Your task to perform on an android device: turn off location history Image 0: 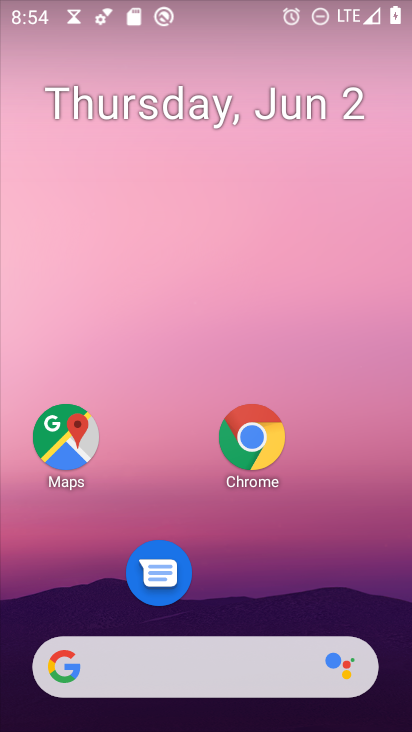
Step 0: press home button
Your task to perform on an android device: turn off location history Image 1: 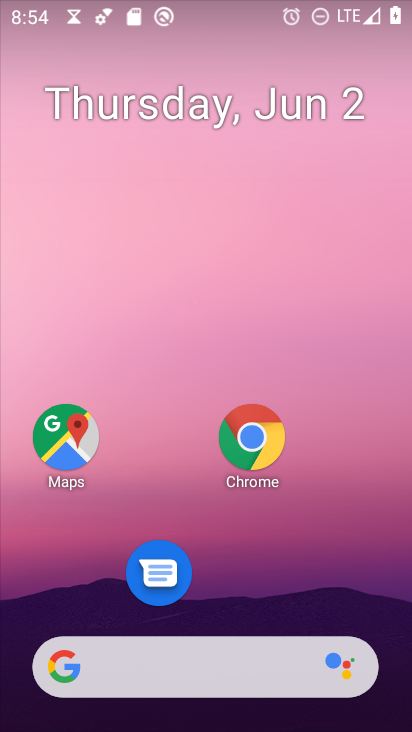
Step 1: click (60, 464)
Your task to perform on an android device: turn off location history Image 2: 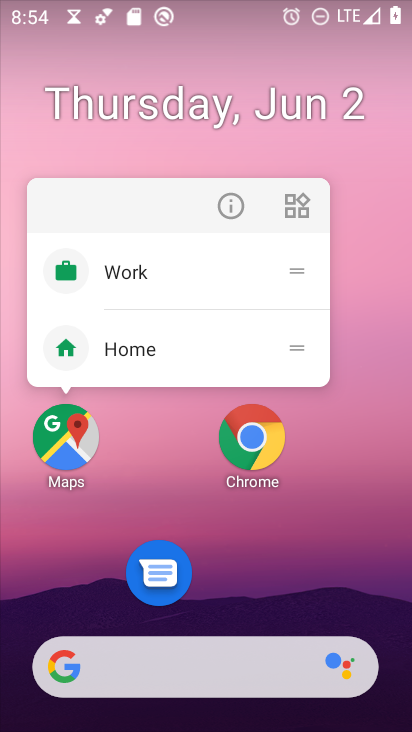
Step 2: click (60, 448)
Your task to perform on an android device: turn off location history Image 3: 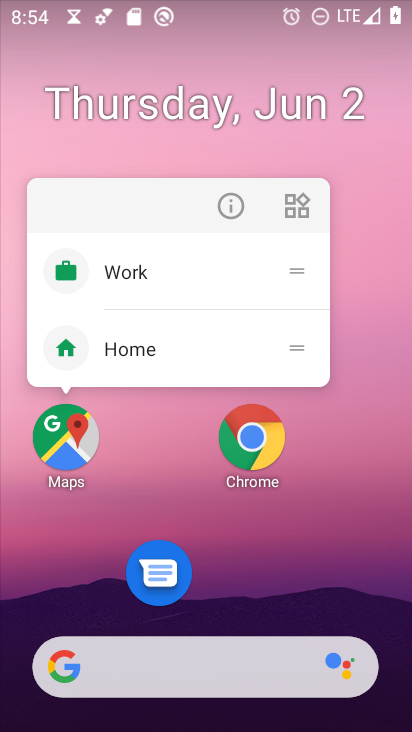
Step 3: click (65, 441)
Your task to perform on an android device: turn off location history Image 4: 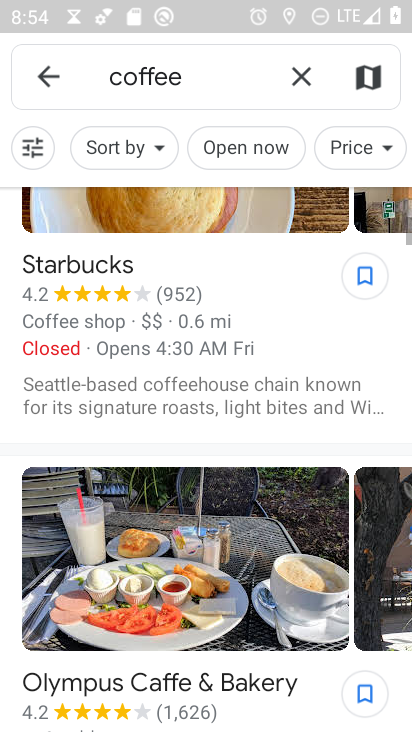
Step 4: click (45, 73)
Your task to perform on an android device: turn off location history Image 5: 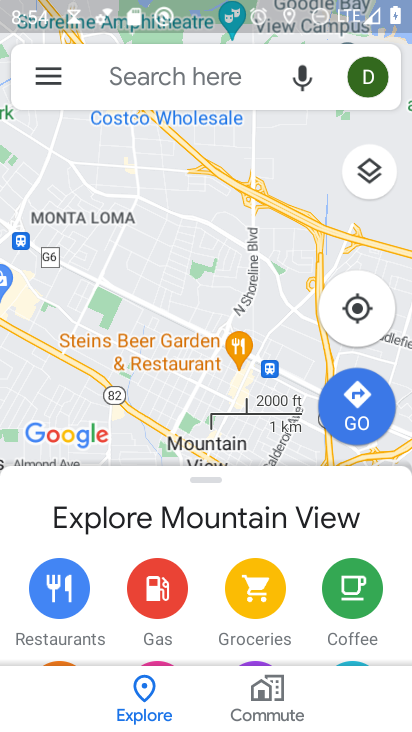
Step 5: click (48, 74)
Your task to perform on an android device: turn off location history Image 6: 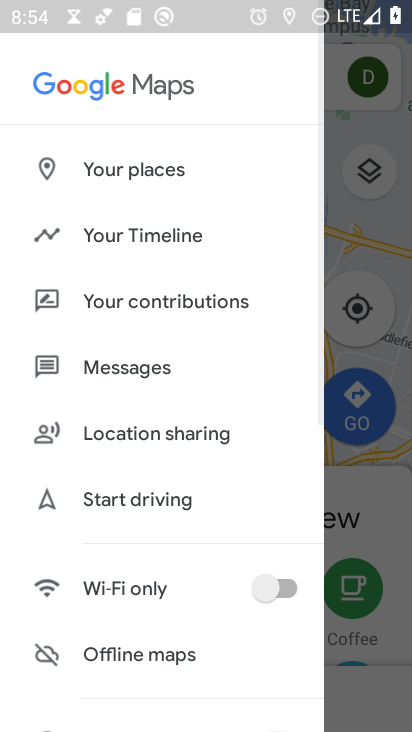
Step 6: click (137, 237)
Your task to perform on an android device: turn off location history Image 7: 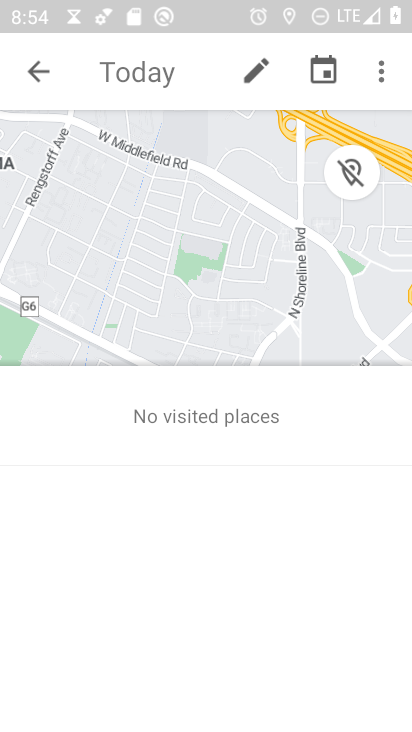
Step 7: click (384, 77)
Your task to perform on an android device: turn off location history Image 8: 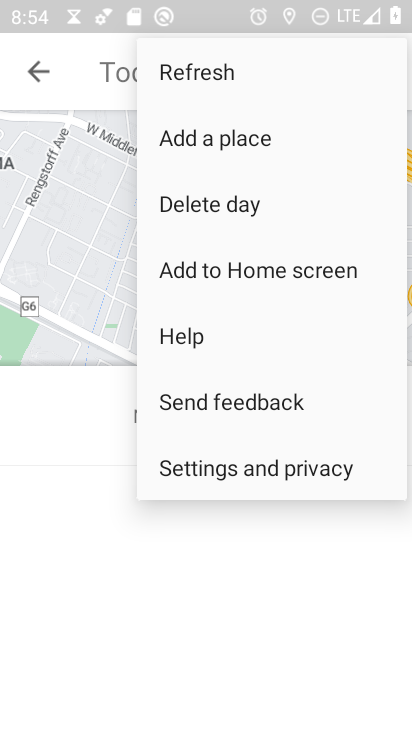
Step 8: click (199, 469)
Your task to perform on an android device: turn off location history Image 9: 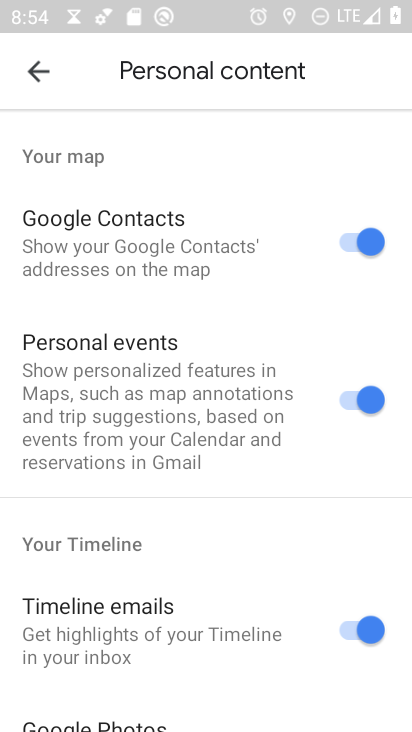
Step 9: drag from (159, 689) to (307, 135)
Your task to perform on an android device: turn off location history Image 10: 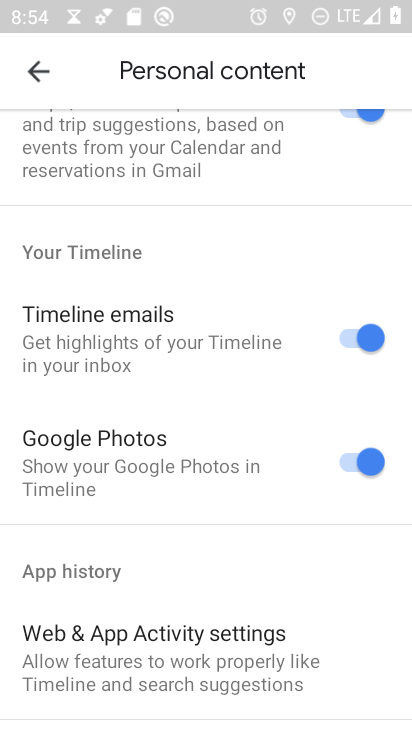
Step 10: drag from (152, 595) to (332, 78)
Your task to perform on an android device: turn off location history Image 11: 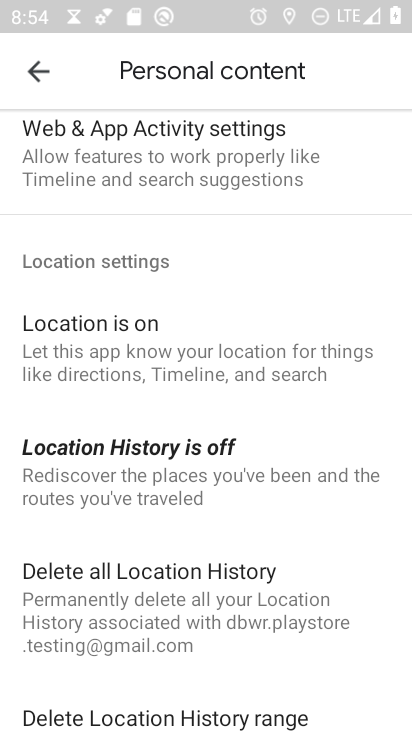
Step 11: click (139, 482)
Your task to perform on an android device: turn off location history Image 12: 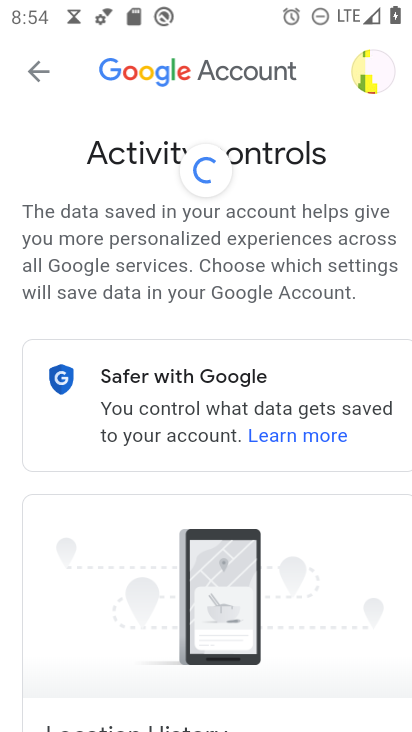
Step 12: task complete